Your task to perform on an android device: Do I have any events this weekend? Image 0: 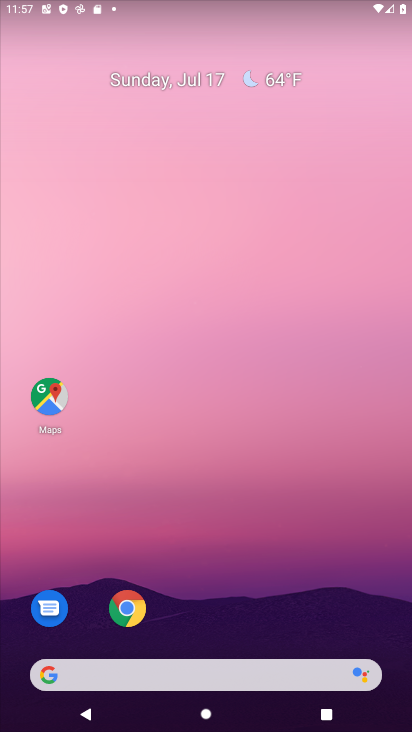
Step 0: drag from (360, 613) to (111, 6)
Your task to perform on an android device: Do I have any events this weekend? Image 1: 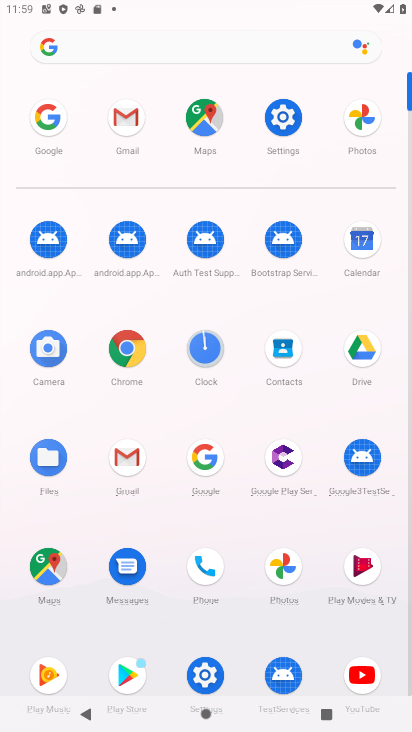
Step 1: click (348, 239)
Your task to perform on an android device: Do I have any events this weekend? Image 2: 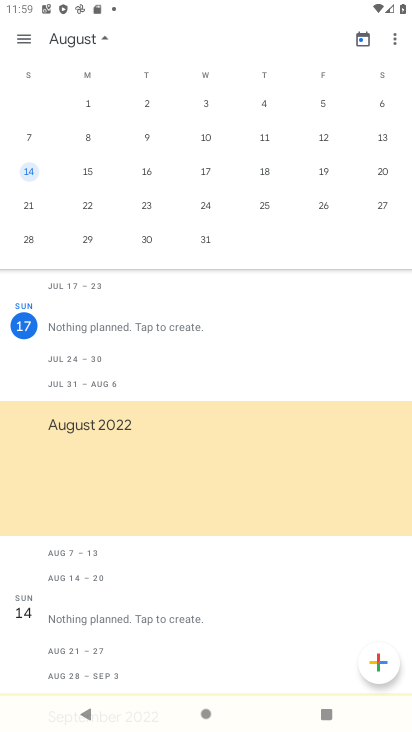
Step 2: task complete